Your task to perform on an android device: Show me popular games on the Play Store Image 0: 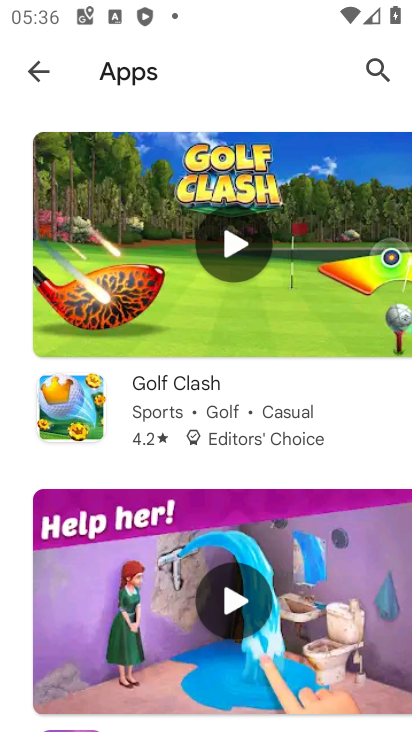
Step 0: drag from (228, 638) to (267, 130)
Your task to perform on an android device: Show me popular games on the Play Store Image 1: 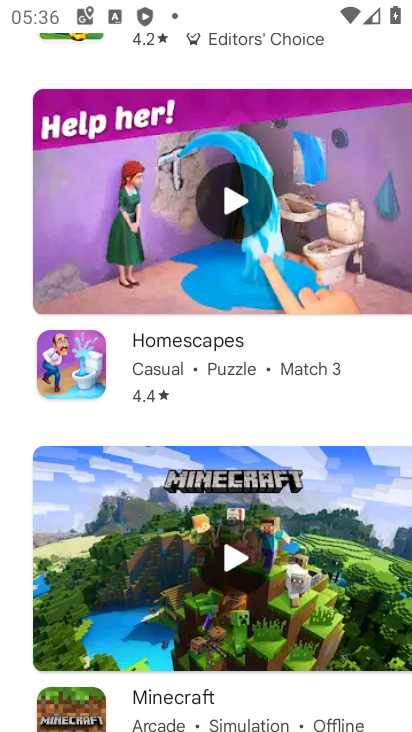
Step 1: task complete